Your task to perform on an android device: turn off priority inbox in the gmail app Image 0: 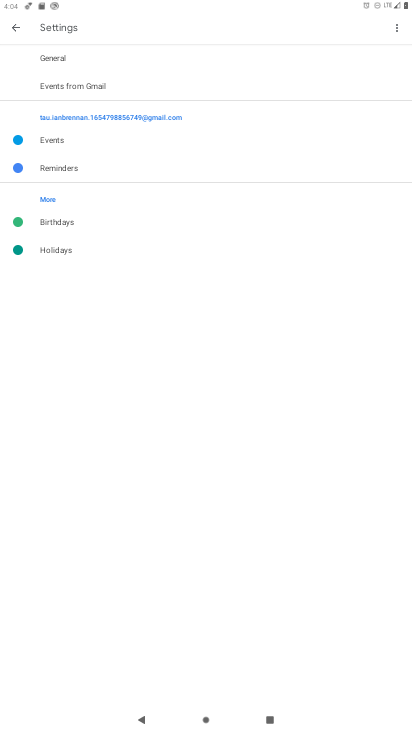
Step 0: press home button
Your task to perform on an android device: turn off priority inbox in the gmail app Image 1: 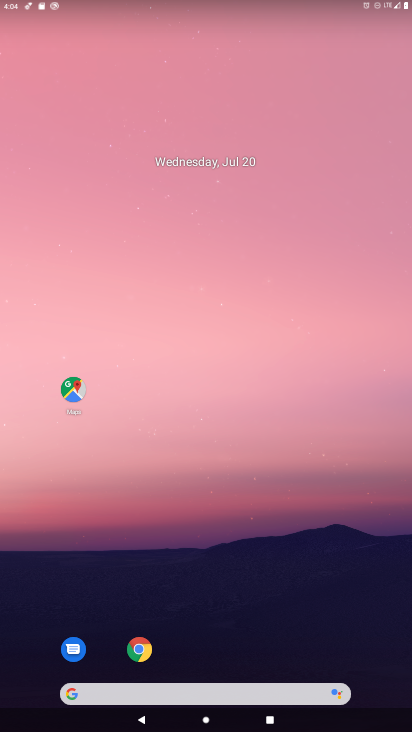
Step 1: drag from (172, 690) to (228, 59)
Your task to perform on an android device: turn off priority inbox in the gmail app Image 2: 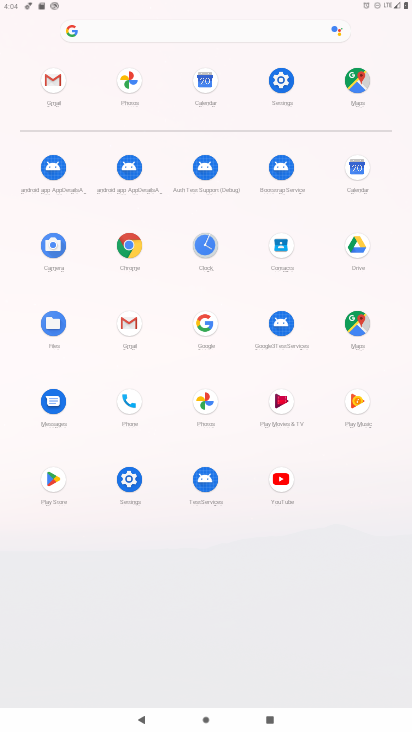
Step 2: click (51, 78)
Your task to perform on an android device: turn off priority inbox in the gmail app Image 3: 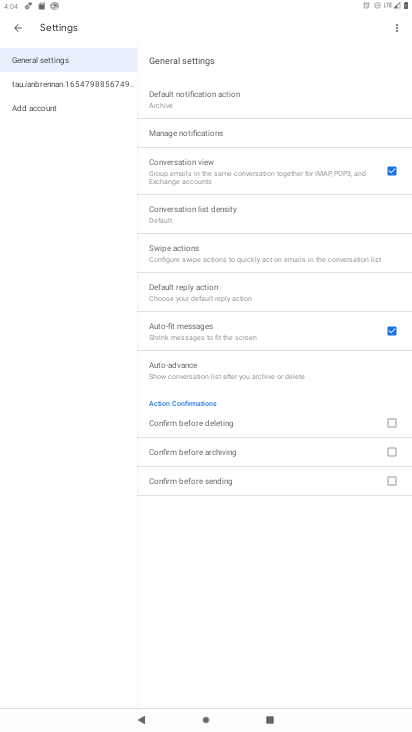
Step 3: click (62, 87)
Your task to perform on an android device: turn off priority inbox in the gmail app Image 4: 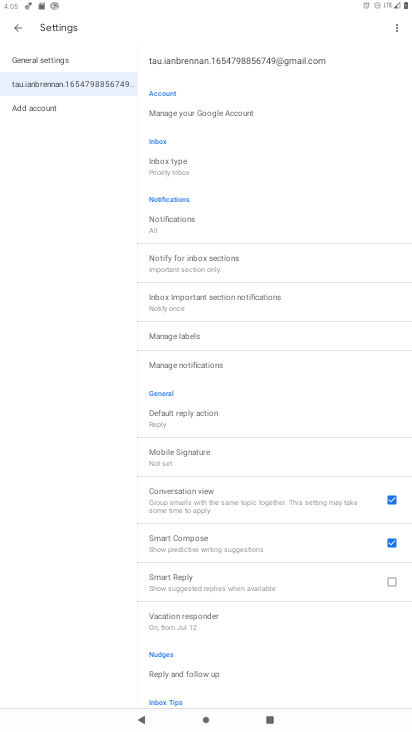
Step 4: click (168, 169)
Your task to perform on an android device: turn off priority inbox in the gmail app Image 5: 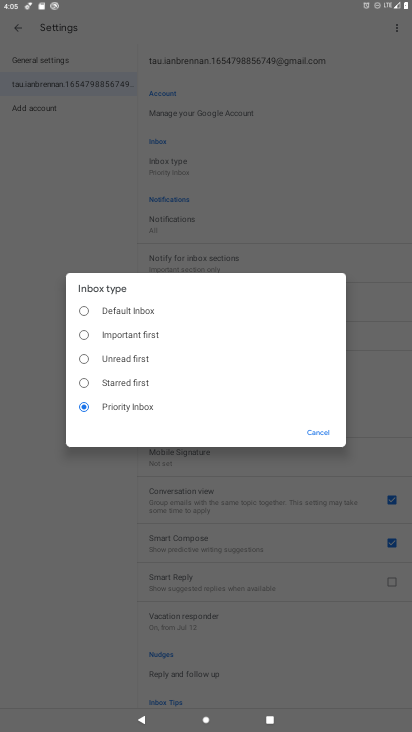
Step 5: click (83, 382)
Your task to perform on an android device: turn off priority inbox in the gmail app Image 6: 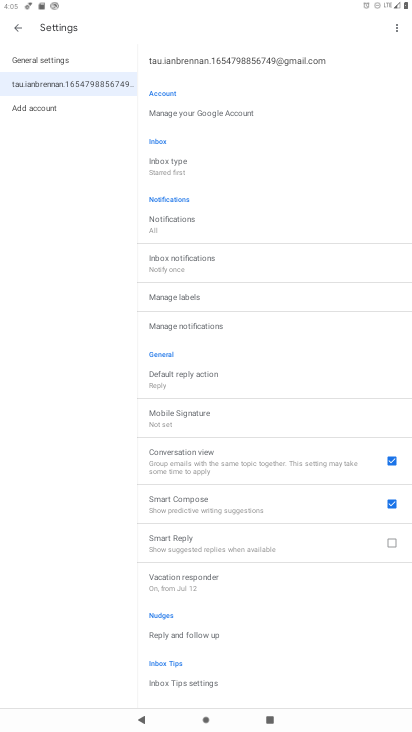
Step 6: task complete